Your task to perform on an android device: Check the news Image 0: 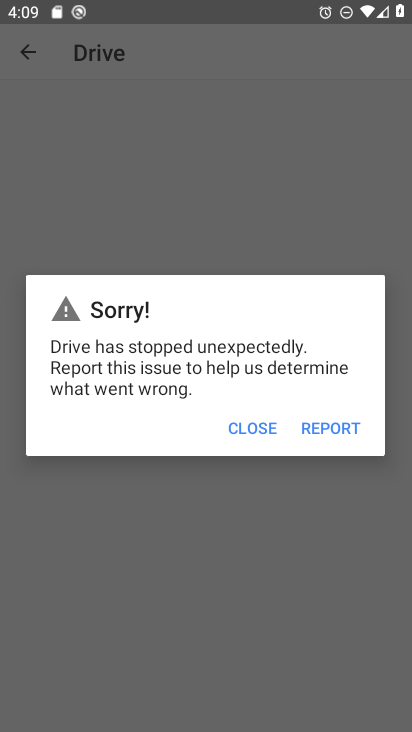
Step 0: press home button
Your task to perform on an android device: Check the news Image 1: 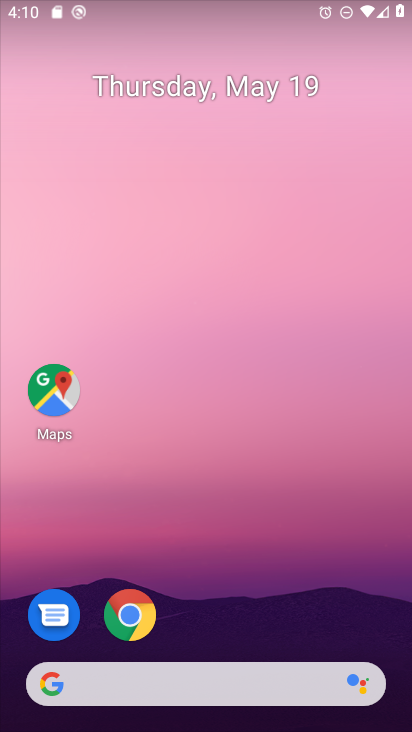
Step 1: click (135, 626)
Your task to perform on an android device: Check the news Image 2: 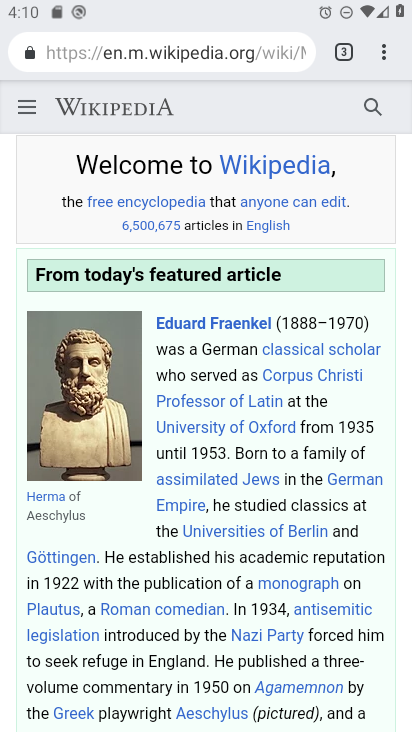
Step 2: click (128, 54)
Your task to perform on an android device: Check the news Image 3: 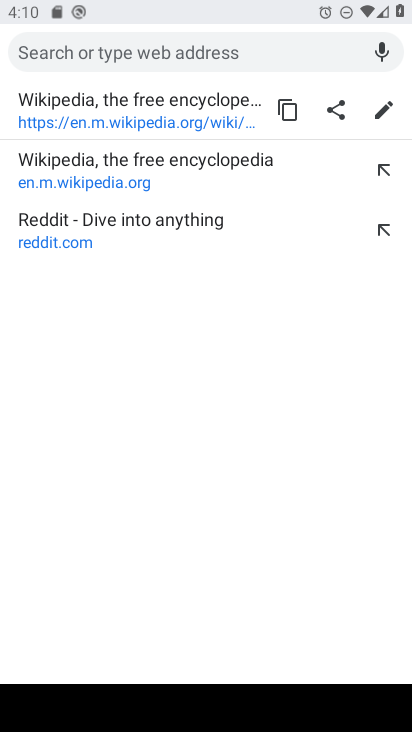
Step 3: type "news"
Your task to perform on an android device: Check the news Image 4: 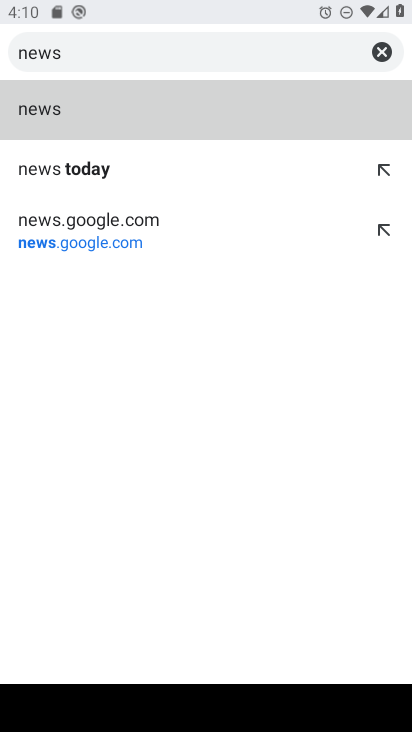
Step 4: click (133, 105)
Your task to perform on an android device: Check the news Image 5: 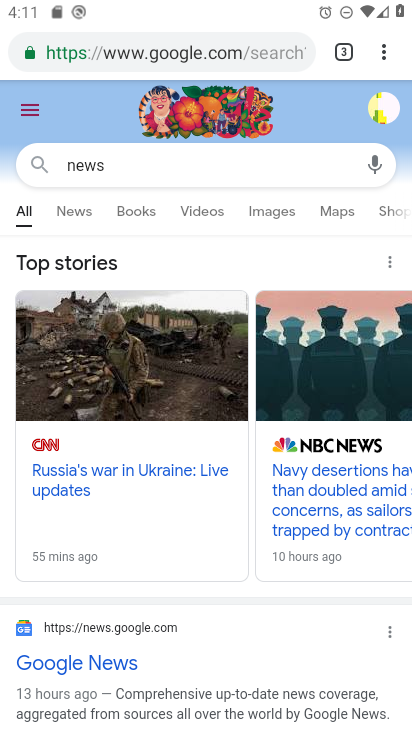
Step 5: task complete